Your task to perform on an android device: Open Google Chrome and click the shortcut for Amazon.com Image 0: 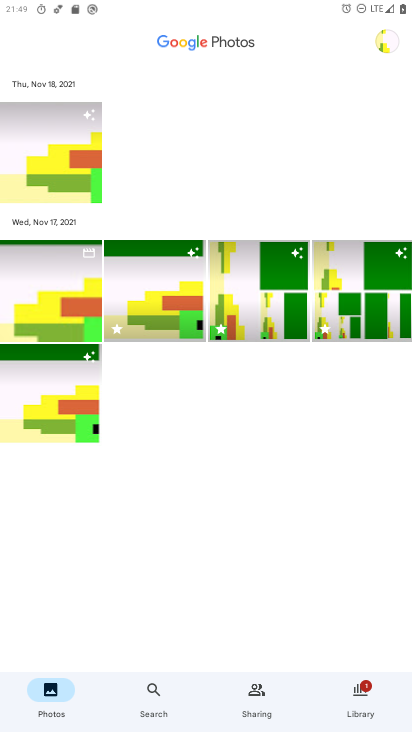
Step 0: drag from (204, 601) to (261, 209)
Your task to perform on an android device: Open Google Chrome and click the shortcut for Amazon.com Image 1: 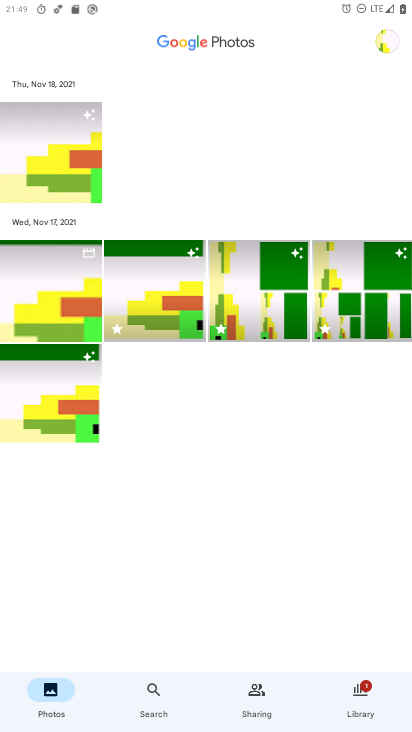
Step 1: press home button
Your task to perform on an android device: Open Google Chrome and click the shortcut for Amazon.com Image 2: 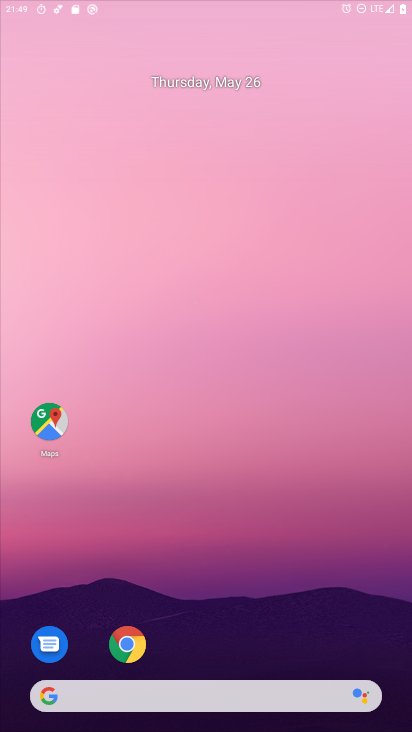
Step 2: drag from (233, 528) to (246, 56)
Your task to perform on an android device: Open Google Chrome and click the shortcut for Amazon.com Image 3: 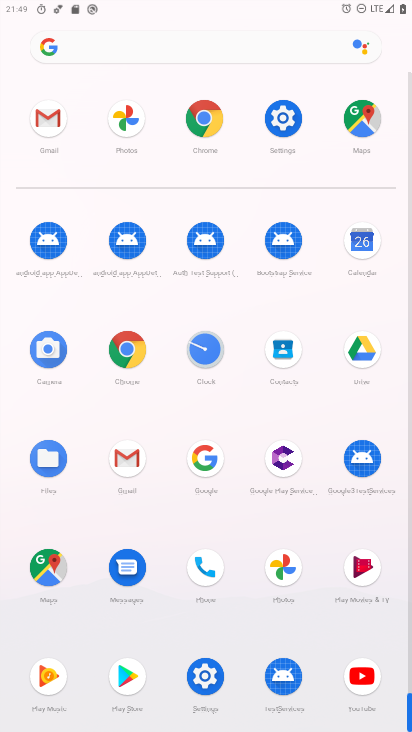
Step 3: click (127, 349)
Your task to perform on an android device: Open Google Chrome and click the shortcut for Amazon.com Image 4: 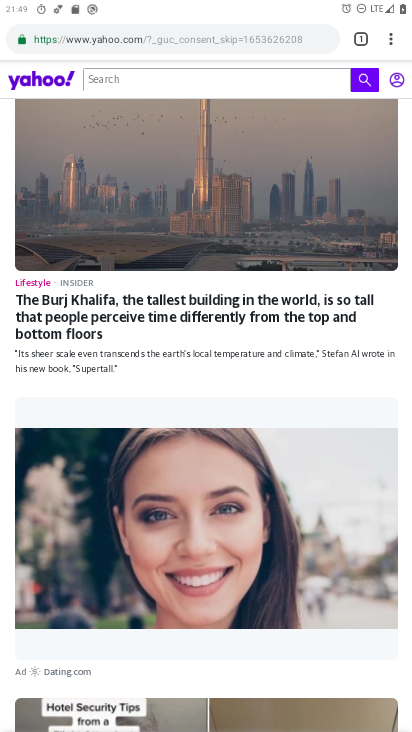
Step 4: drag from (232, 197) to (303, 531)
Your task to perform on an android device: Open Google Chrome and click the shortcut for Amazon.com Image 5: 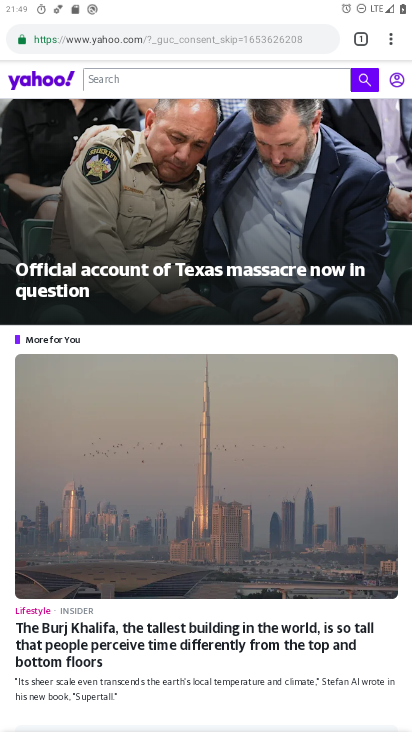
Step 5: drag from (250, 317) to (327, 104)
Your task to perform on an android device: Open Google Chrome and click the shortcut for Amazon.com Image 6: 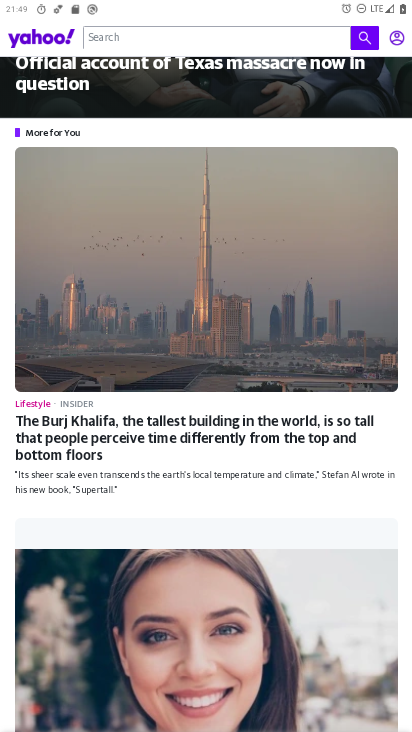
Step 6: drag from (210, 217) to (229, 560)
Your task to perform on an android device: Open Google Chrome and click the shortcut for Amazon.com Image 7: 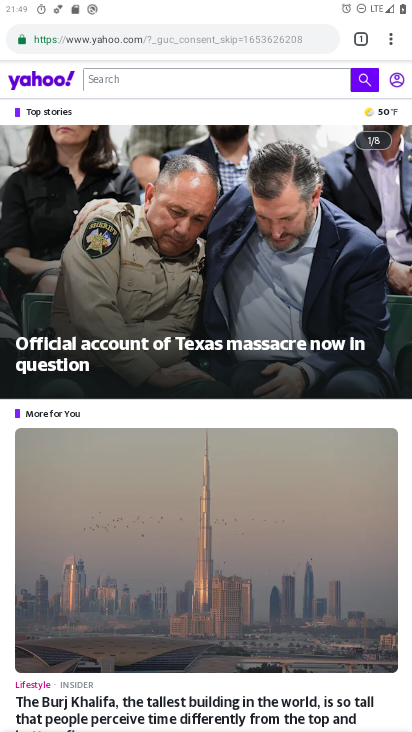
Step 7: drag from (195, 408) to (299, 201)
Your task to perform on an android device: Open Google Chrome and click the shortcut for Amazon.com Image 8: 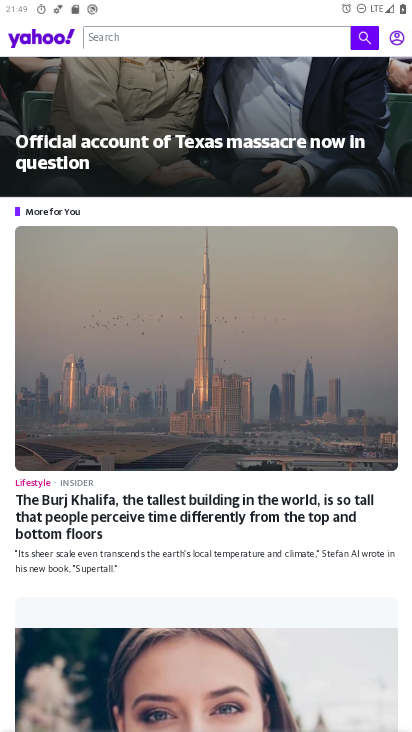
Step 8: drag from (273, 401) to (279, 707)
Your task to perform on an android device: Open Google Chrome and click the shortcut for Amazon.com Image 9: 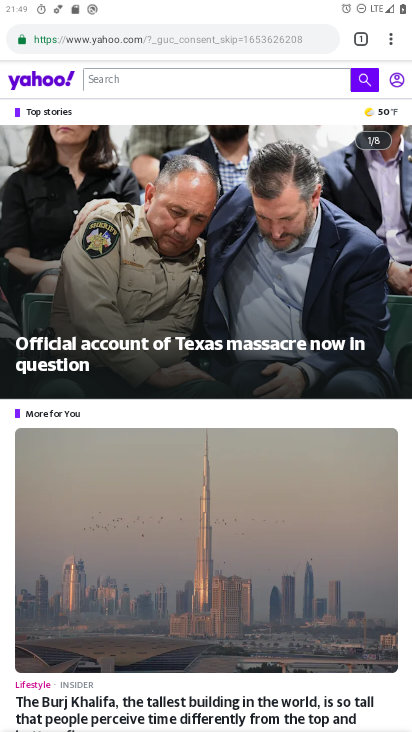
Step 9: drag from (184, 685) to (205, 407)
Your task to perform on an android device: Open Google Chrome and click the shortcut for Amazon.com Image 10: 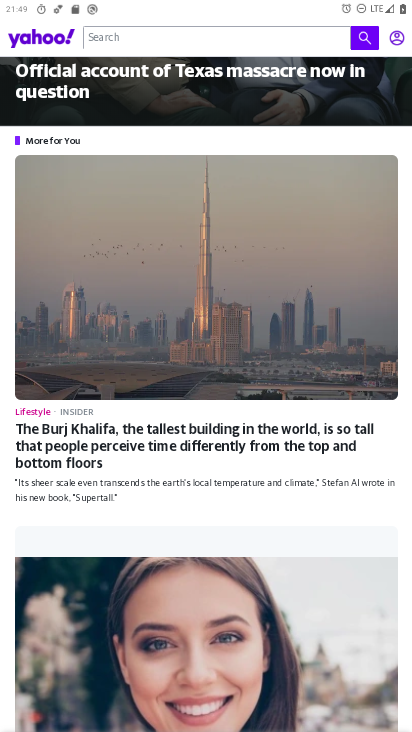
Step 10: drag from (283, 129) to (387, 610)
Your task to perform on an android device: Open Google Chrome and click the shortcut for Amazon.com Image 11: 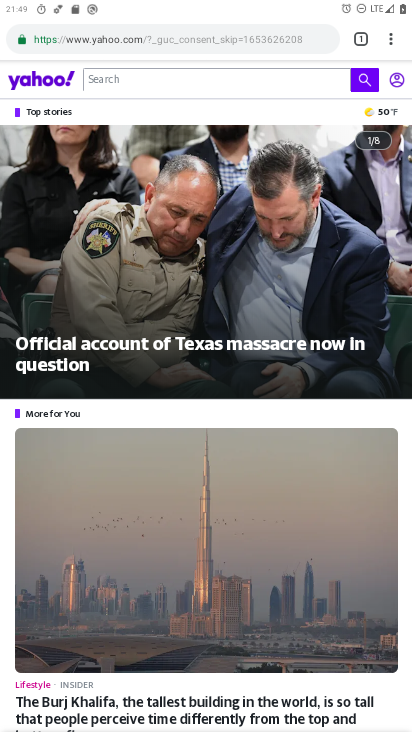
Step 11: click (358, 28)
Your task to perform on an android device: Open Google Chrome and click the shortcut for Amazon.com Image 12: 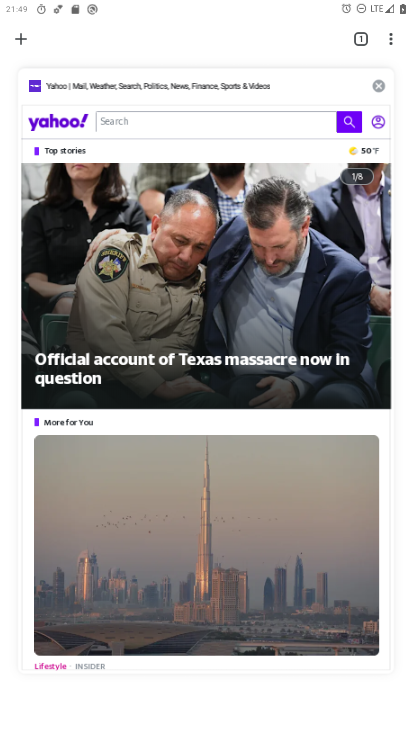
Step 12: click (378, 84)
Your task to perform on an android device: Open Google Chrome and click the shortcut for Amazon.com Image 13: 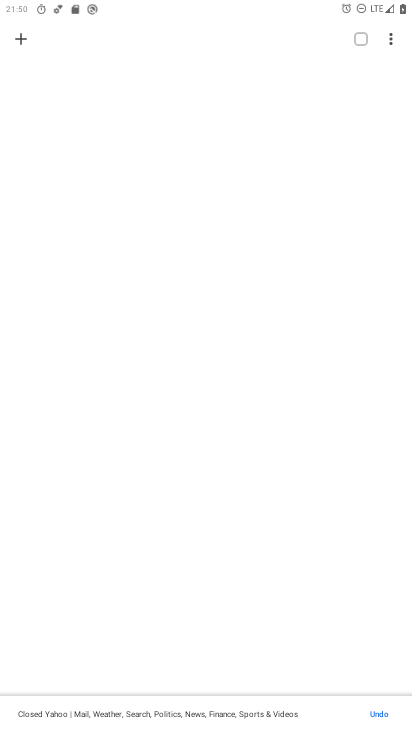
Step 13: click (22, 43)
Your task to perform on an android device: Open Google Chrome and click the shortcut for Amazon.com Image 14: 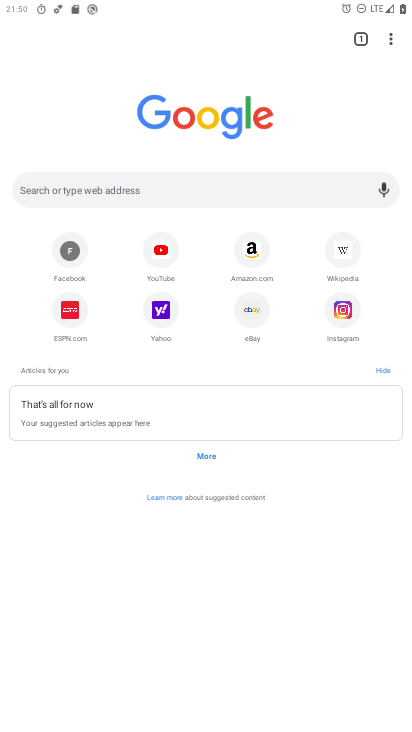
Step 14: drag from (206, 368) to (215, 148)
Your task to perform on an android device: Open Google Chrome and click the shortcut for Amazon.com Image 15: 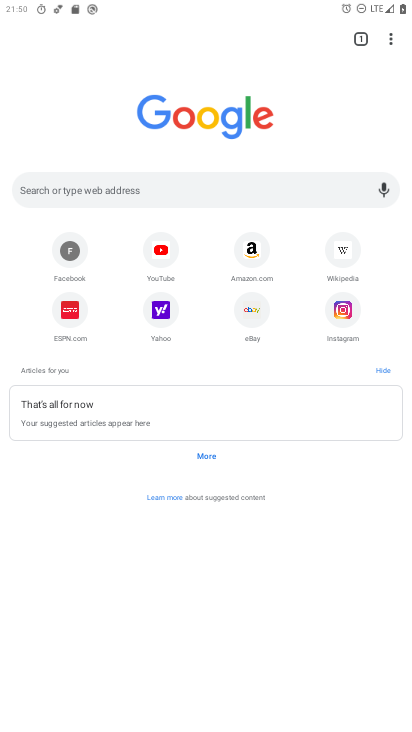
Step 15: click (254, 246)
Your task to perform on an android device: Open Google Chrome and click the shortcut for Amazon.com Image 16: 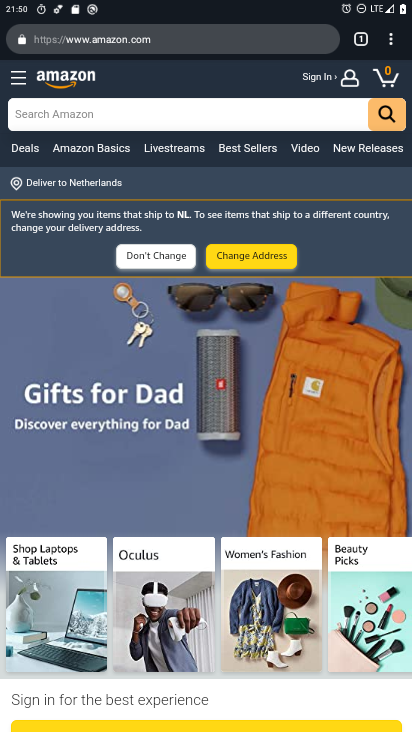
Step 16: task complete